Your task to perform on an android device: turn on the 12-hour format for clock Image 0: 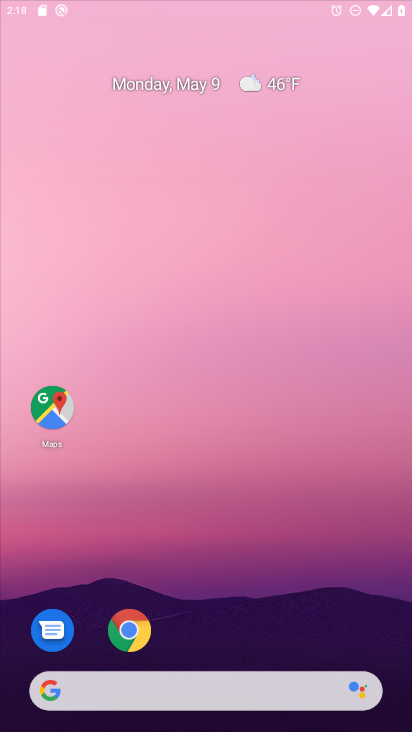
Step 0: press home button
Your task to perform on an android device: turn on the 12-hour format for clock Image 1: 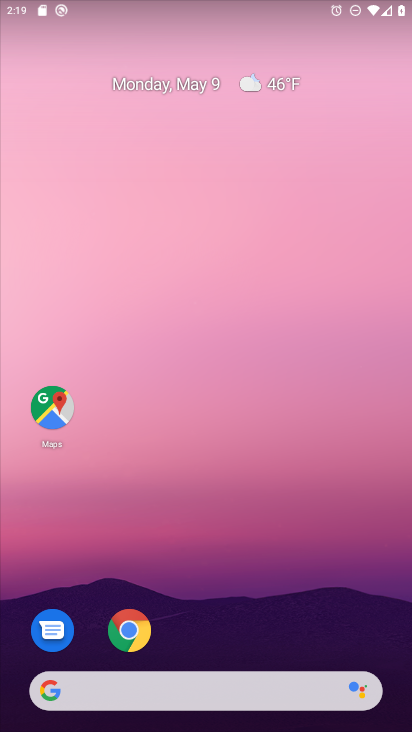
Step 1: drag from (215, 729) to (347, 198)
Your task to perform on an android device: turn on the 12-hour format for clock Image 2: 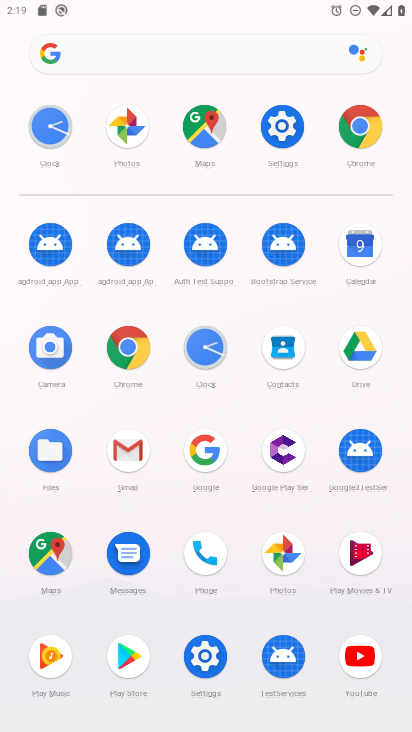
Step 2: click (193, 350)
Your task to perform on an android device: turn on the 12-hour format for clock Image 3: 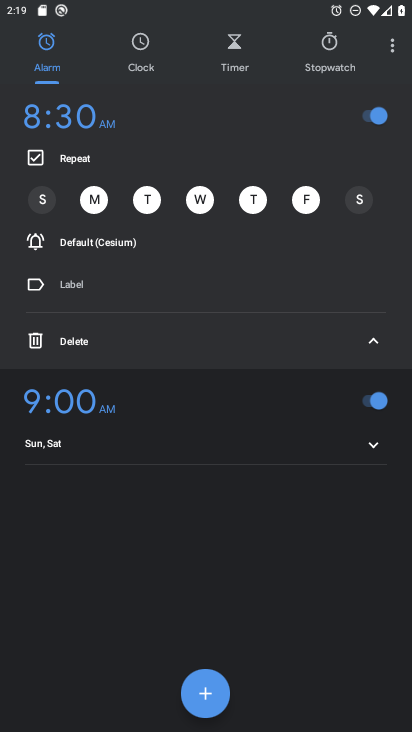
Step 3: click (385, 44)
Your task to perform on an android device: turn on the 12-hour format for clock Image 4: 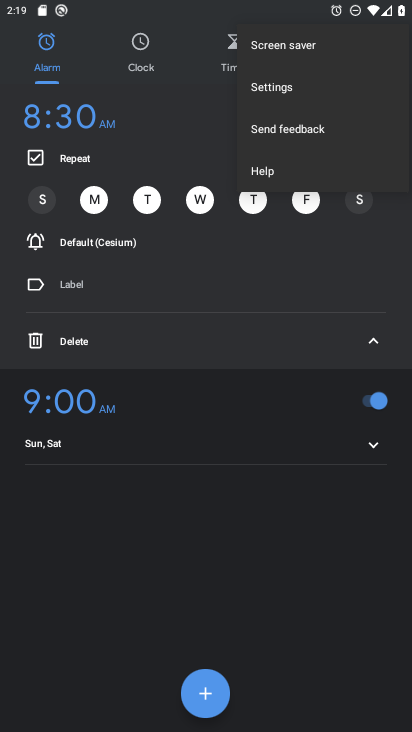
Step 4: click (284, 89)
Your task to perform on an android device: turn on the 12-hour format for clock Image 5: 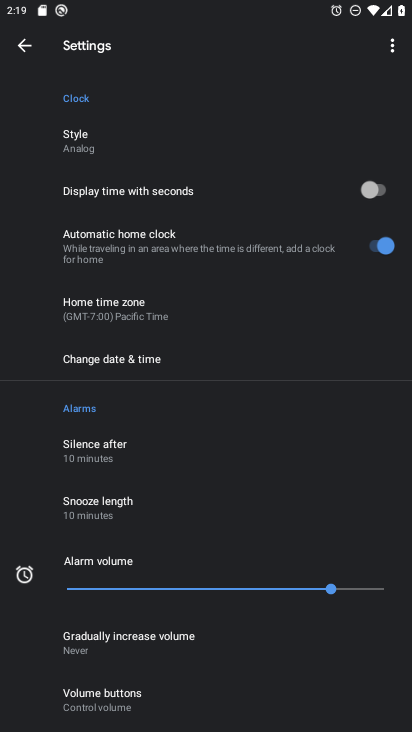
Step 5: click (163, 312)
Your task to perform on an android device: turn on the 12-hour format for clock Image 6: 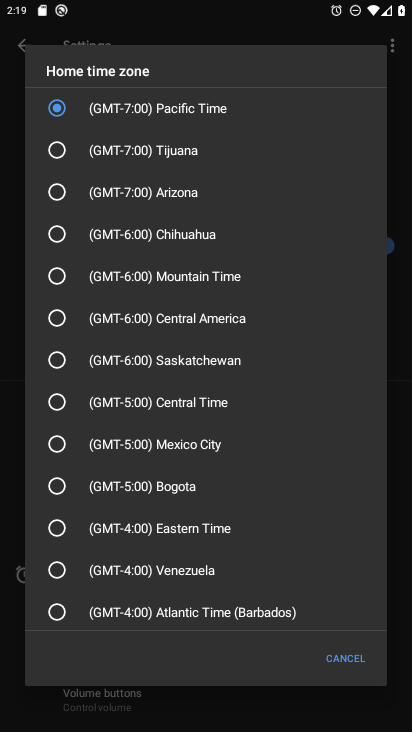
Step 6: click (352, 656)
Your task to perform on an android device: turn on the 12-hour format for clock Image 7: 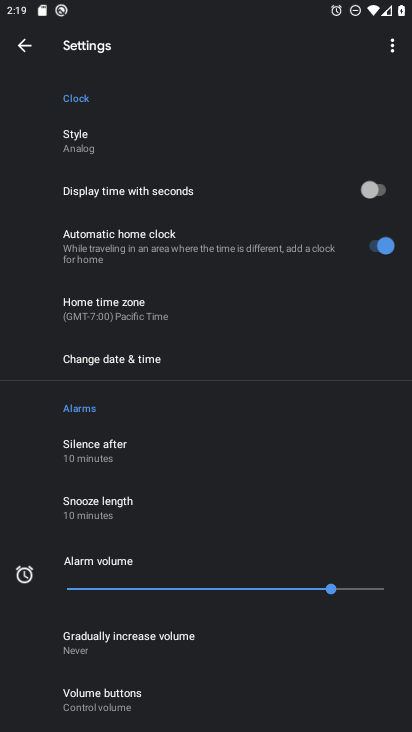
Step 7: click (162, 357)
Your task to perform on an android device: turn on the 12-hour format for clock Image 8: 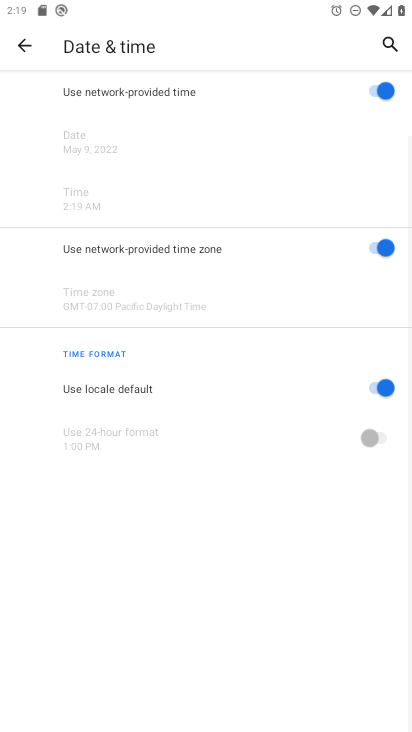
Step 8: click (366, 381)
Your task to perform on an android device: turn on the 12-hour format for clock Image 9: 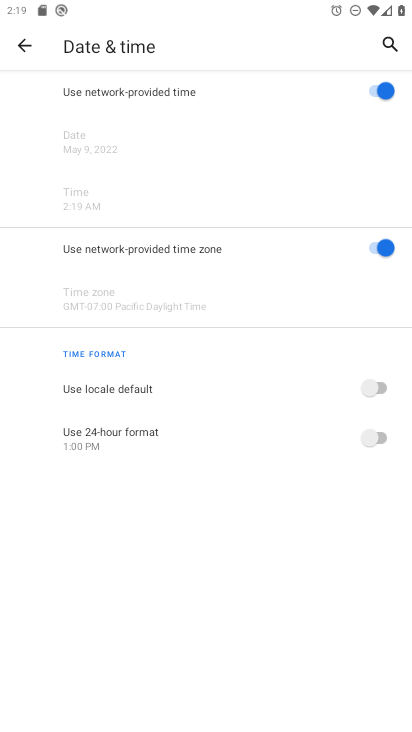
Step 9: click (367, 440)
Your task to perform on an android device: turn on the 12-hour format for clock Image 10: 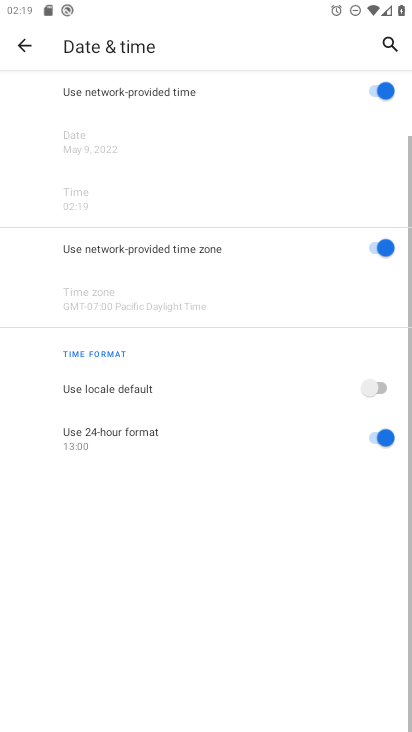
Step 10: click (367, 440)
Your task to perform on an android device: turn on the 12-hour format for clock Image 11: 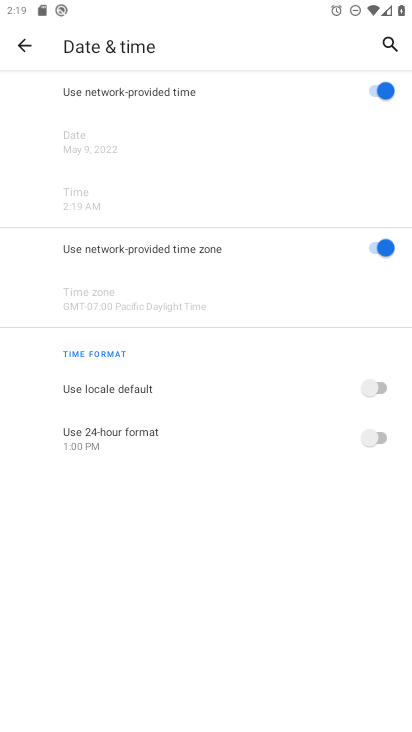
Step 11: task complete